Your task to perform on an android device: Go to Google Image 0: 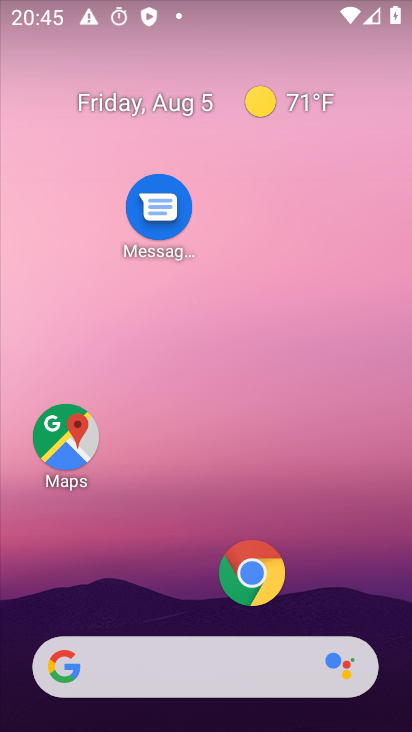
Step 0: click (283, 10)
Your task to perform on an android device: Go to Google Image 1: 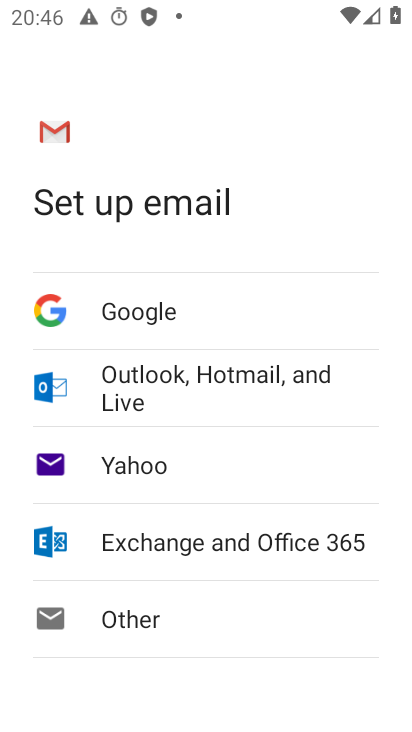
Step 1: press home button
Your task to perform on an android device: Go to Google Image 2: 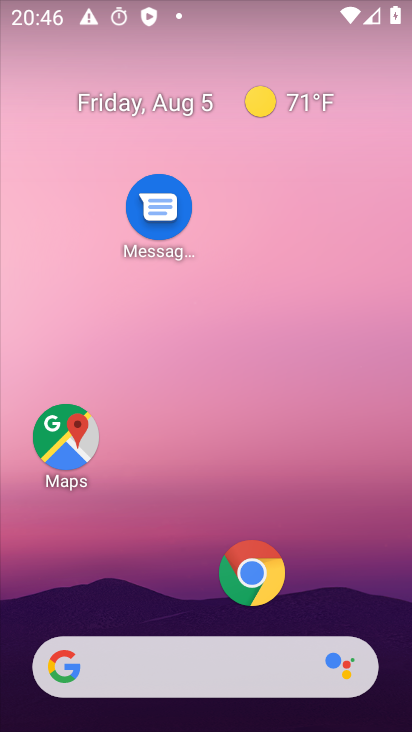
Step 2: drag from (322, 602) to (314, 2)
Your task to perform on an android device: Go to Google Image 3: 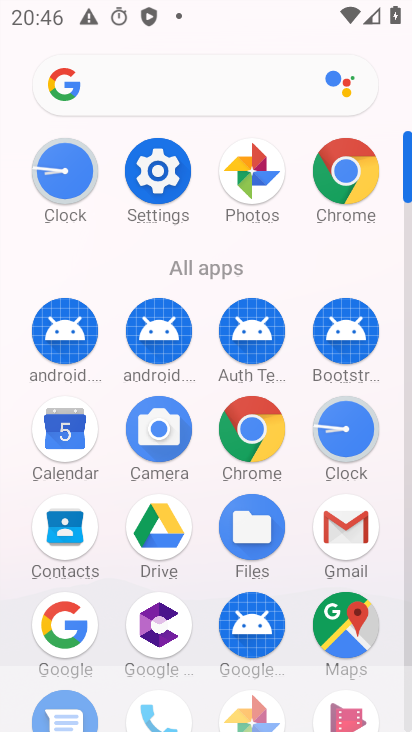
Step 3: drag from (203, 585) to (209, 74)
Your task to perform on an android device: Go to Google Image 4: 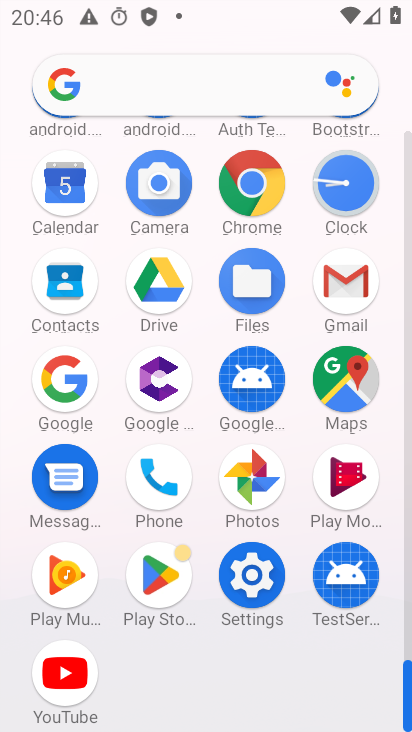
Step 4: click (63, 372)
Your task to perform on an android device: Go to Google Image 5: 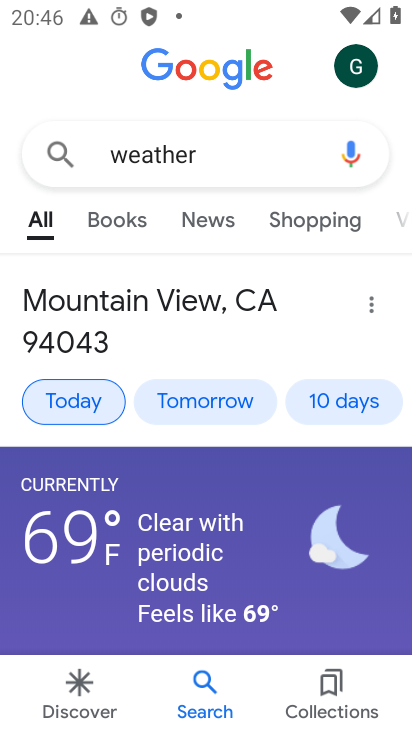
Step 5: drag from (237, 561) to (230, 295)
Your task to perform on an android device: Go to Google Image 6: 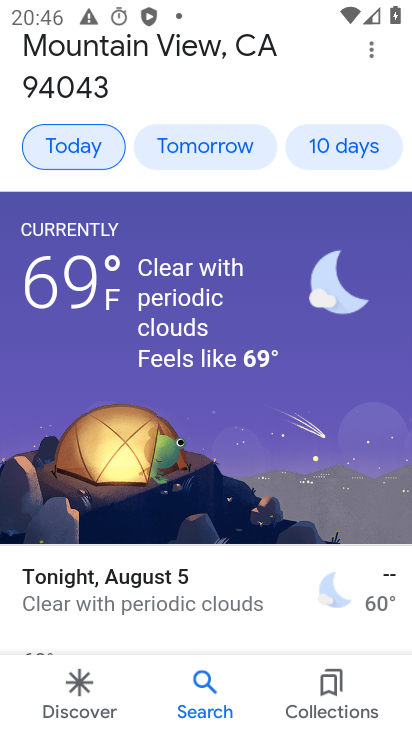
Step 6: drag from (236, 184) to (245, 518)
Your task to perform on an android device: Go to Google Image 7: 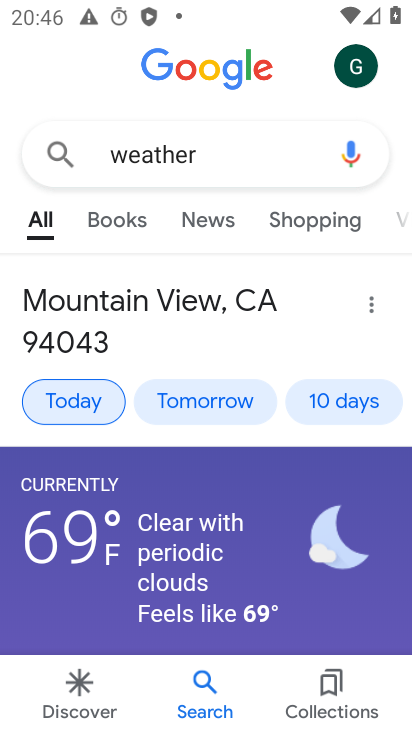
Step 7: click (90, 685)
Your task to perform on an android device: Go to Google Image 8: 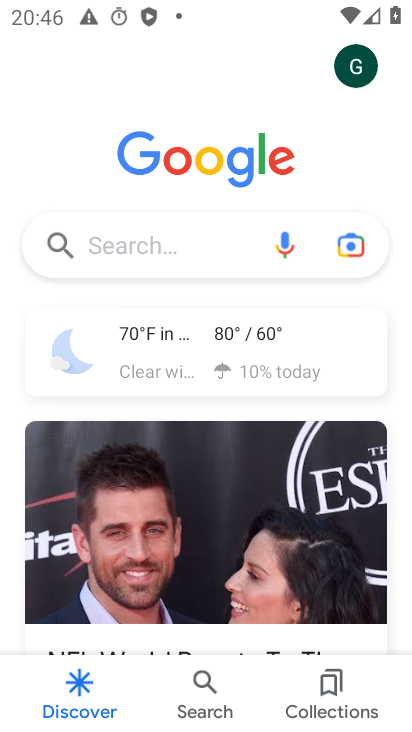
Step 8: task complete